Your task to perform on an android device: uninstall "WhatsApp Messenger" Image 0: 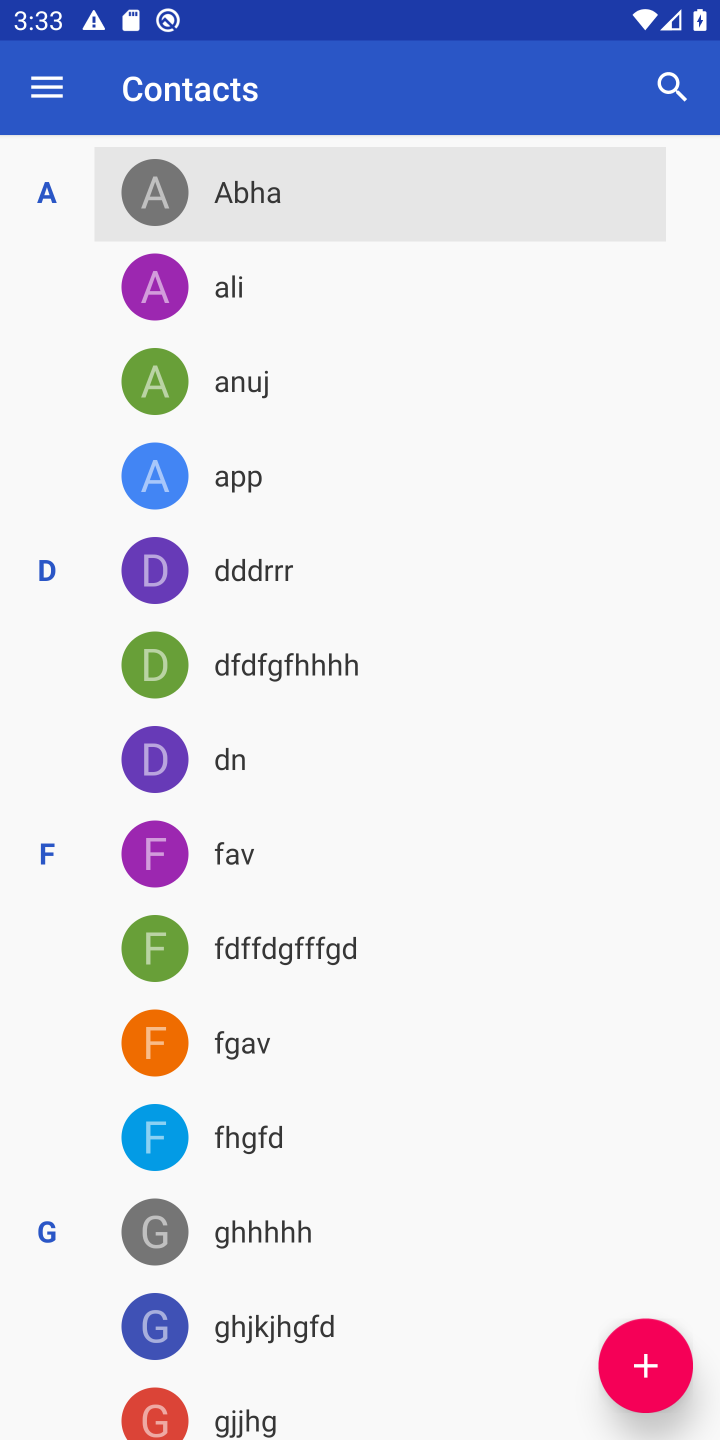
Step 0: press home button
Your task to perform on an android device: uninstall "WhatsApp Messenger" Image 1: 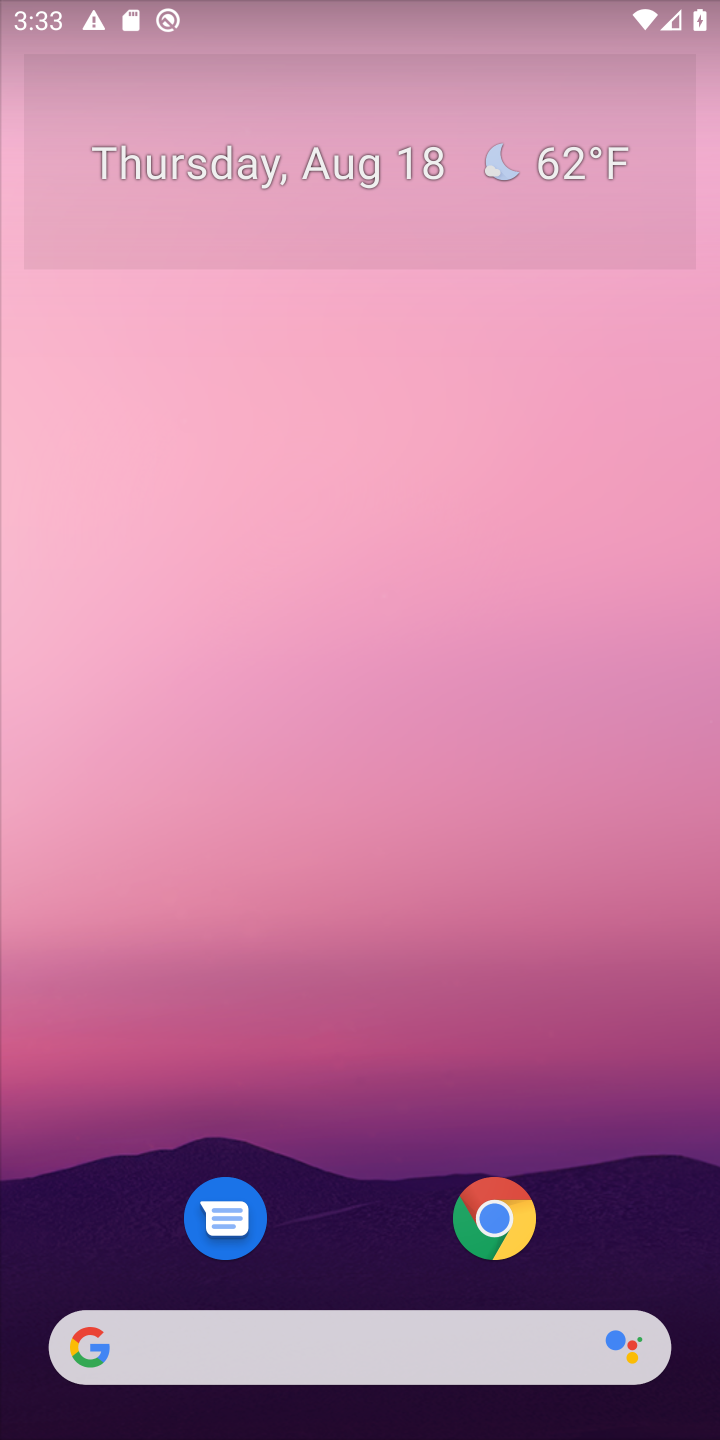
Step 1: drag from (379, 1138) to (435, 351)
Your task to perform on an android device: uninstall "WhatsApp Messenger" Image 2: 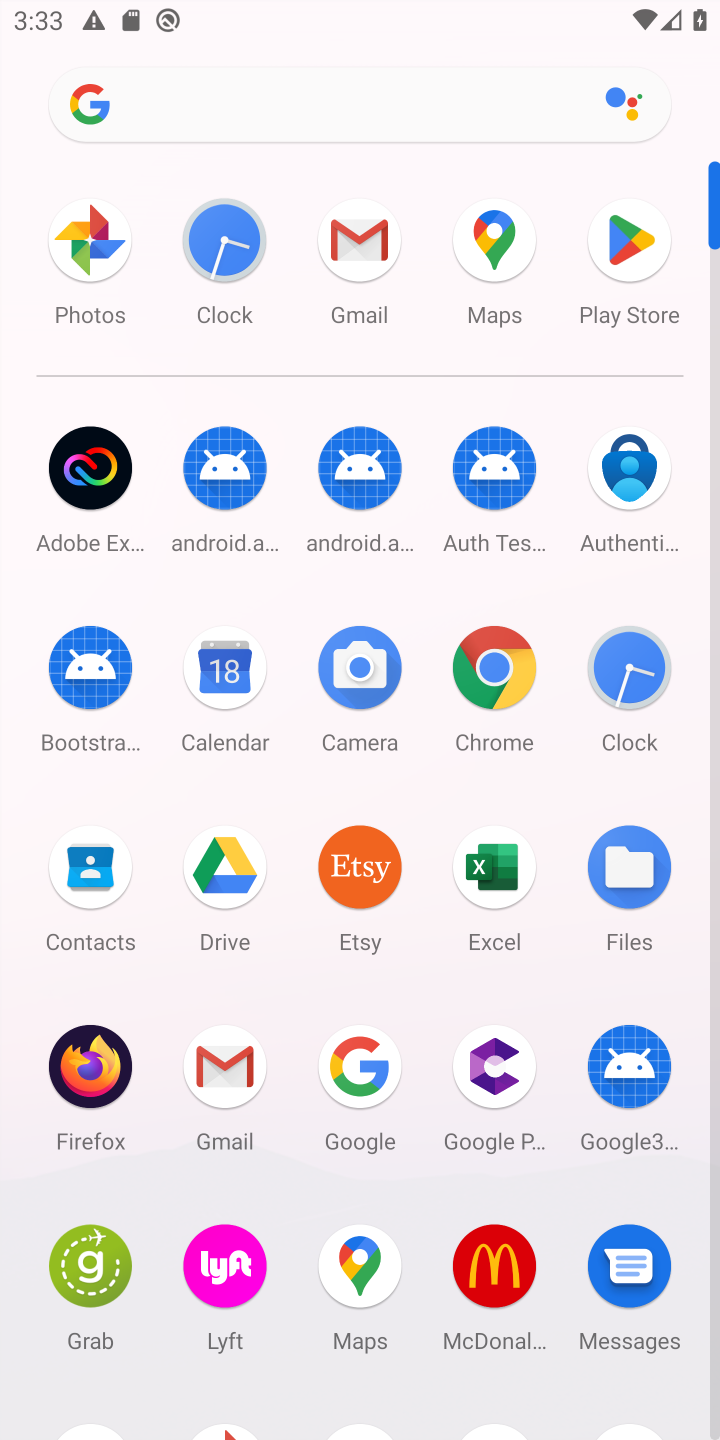
Step 2: click (634, 235)
Your task to perform on an android device: uninstall "WhatsApp Messenger" Image 3: 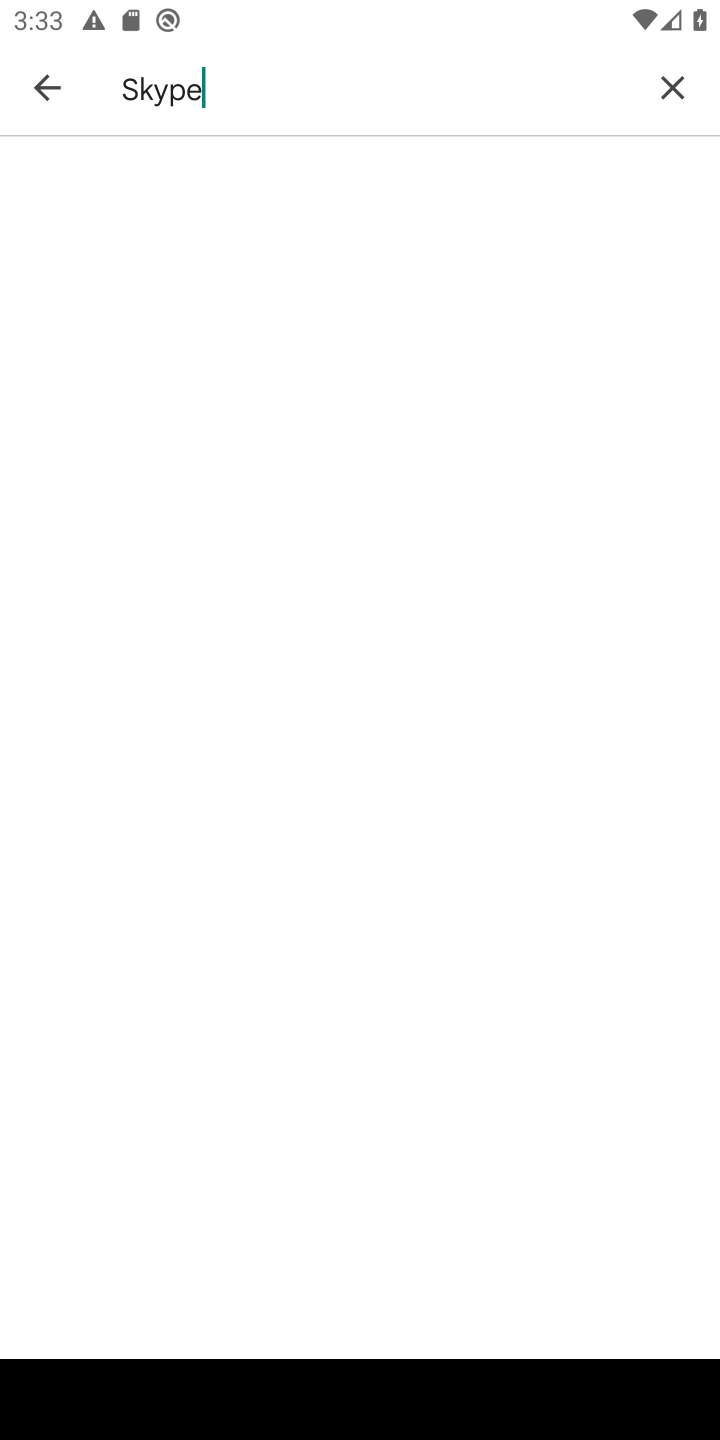
Step 3: click (684, 87)
Your task to perform on an android device: uninstall "WhatsApp Messenger" Image 4: 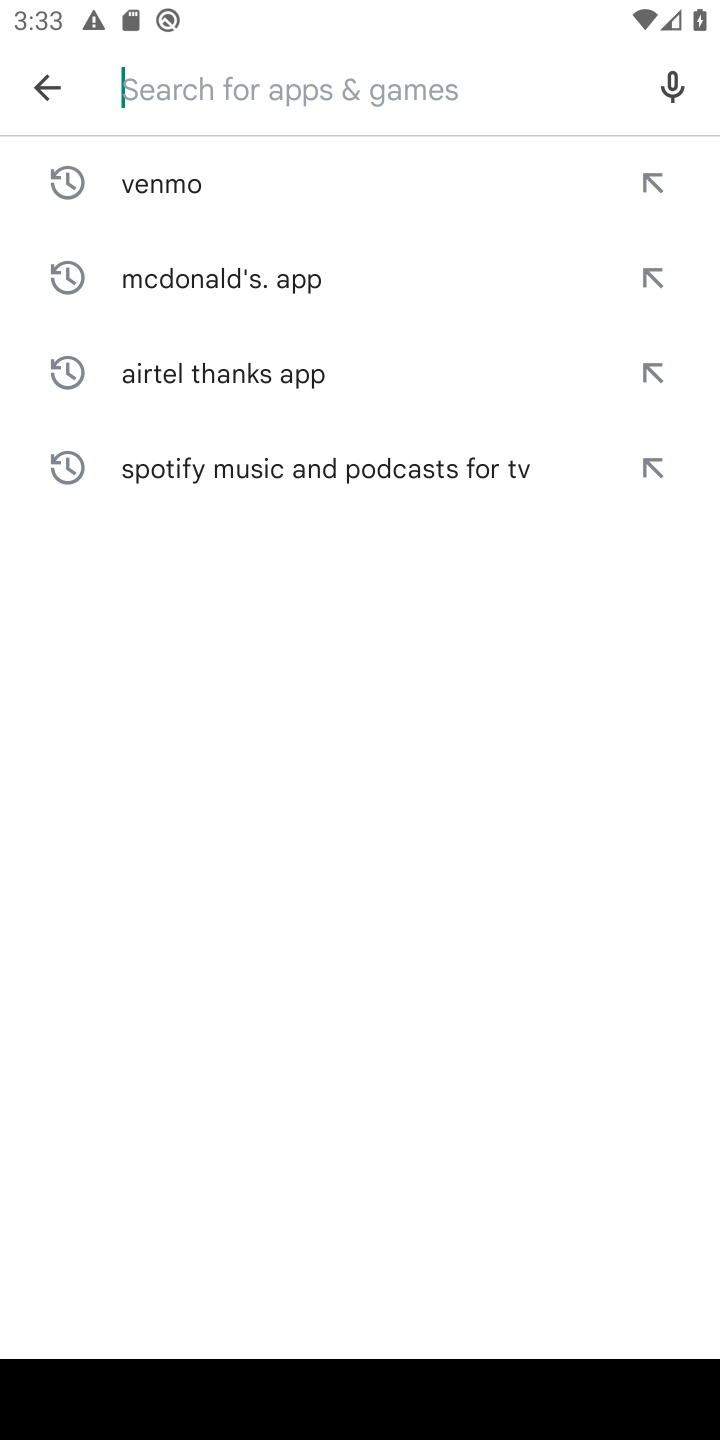
Step 4: type "WhatsApp Messenger"
Your task to perform on an android device: uninstall "WhatsApp Messenger" Image 5: 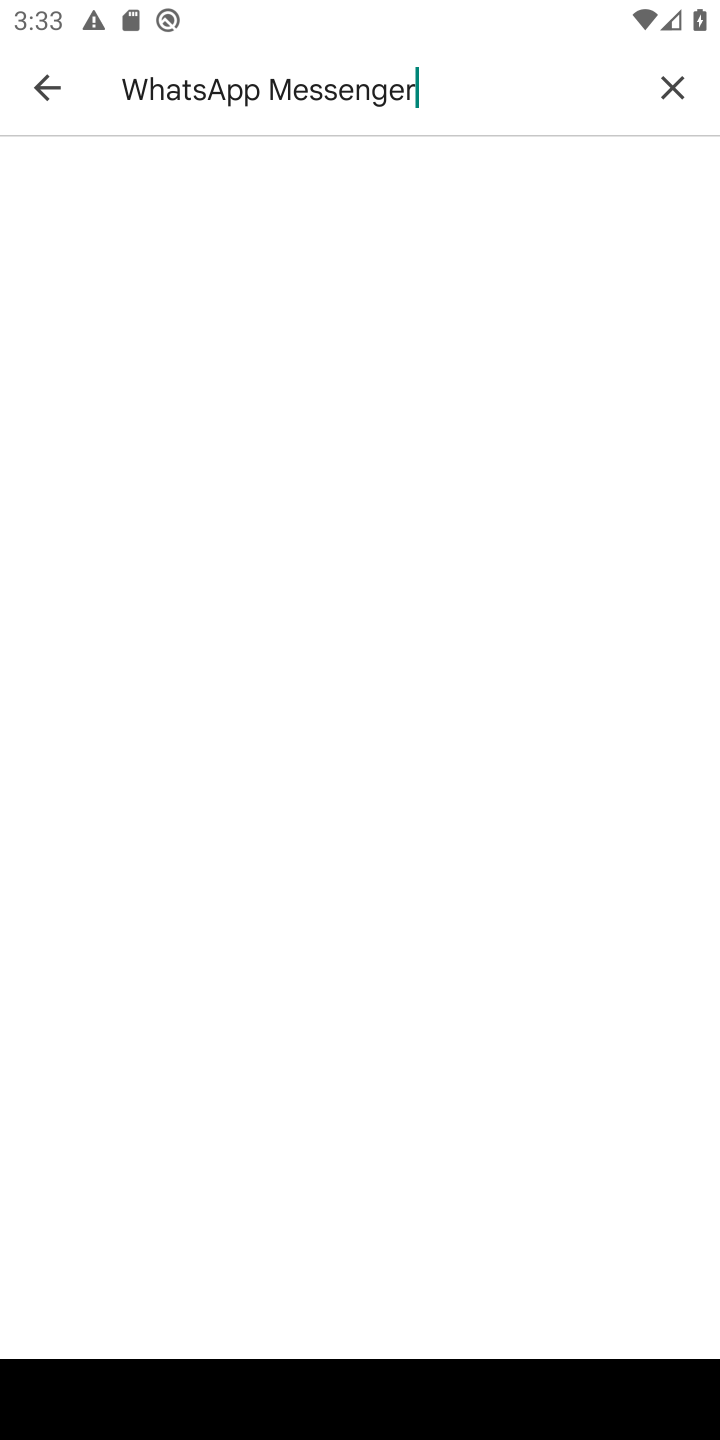
Step 5: type ""
Your task to perform on an android device: uninstall "WhatsApp Messenger" Image 6: 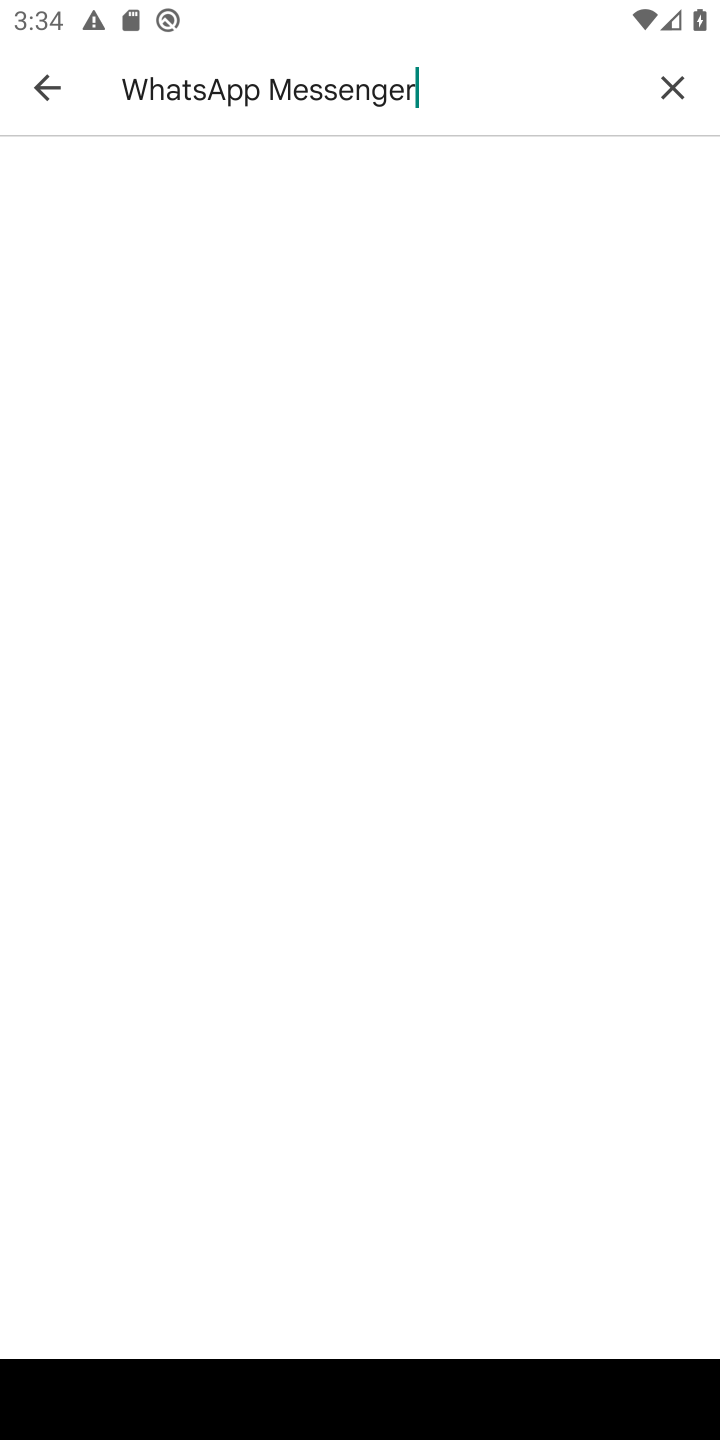
Step 6: task complete